Your task to perform on an android device: Show me popular games on the Play Store Image 0: 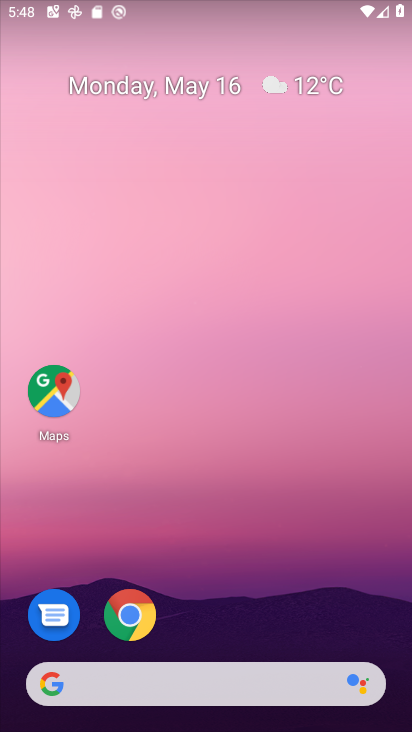
Step 0: drag from (228, 592) to (284, 56)
Your task to perform on an android device: Show me popular games on the Play Store Image 1: 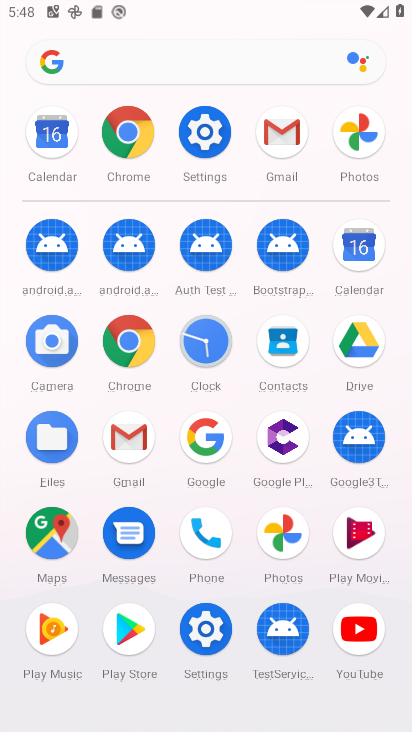
Step 1: click (124, 633)
Your task to perform on an android device: Show me popular games on the Play Store Image 2: 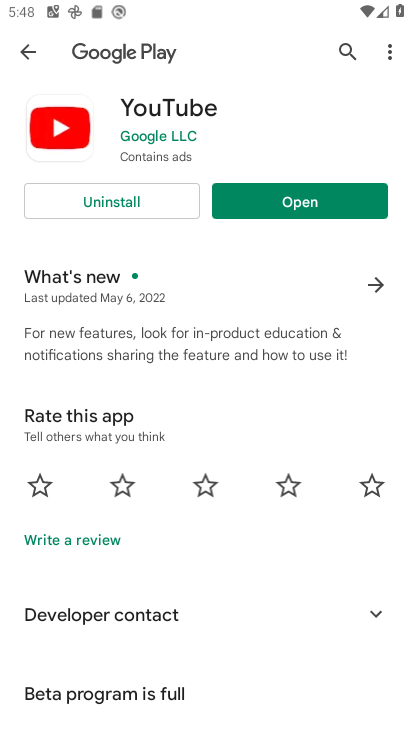
Step 2: press back button
Your task to perform on an android device: Show me popular games on the Play Store Image 3: 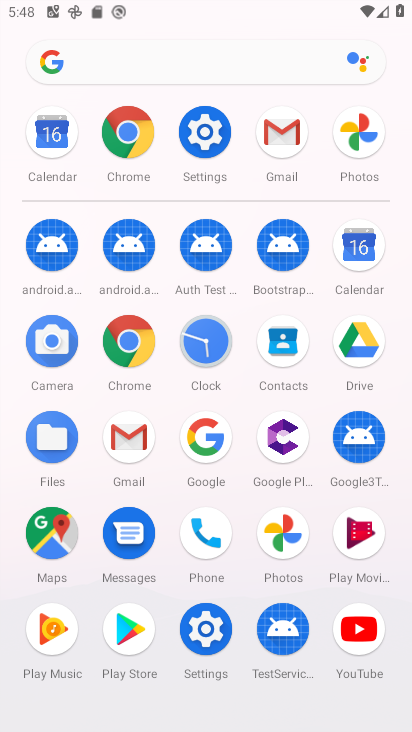
Step 3: click (135, 641)
Your task to perform on an android device: Show me popular games on the Play Store Image 4: 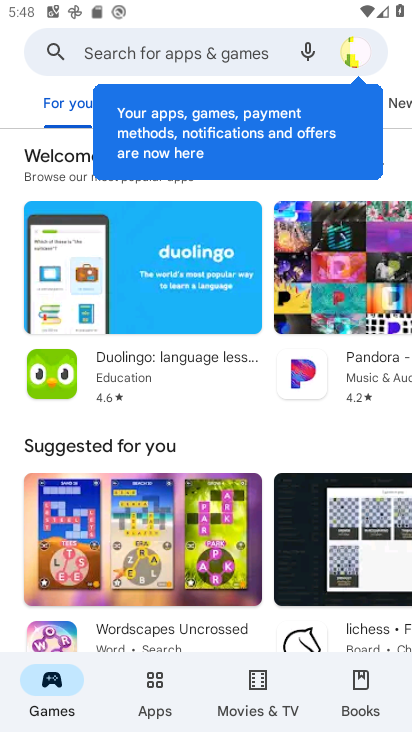
Step 4: task complete